Your task to perform on an android device: search for accent chairs on article.com Image 0: 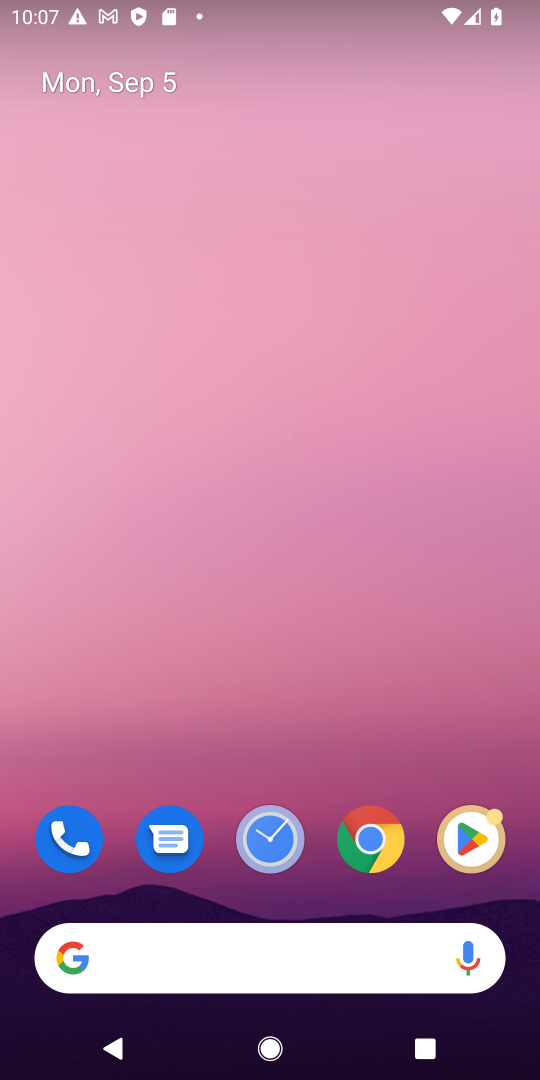
Step 0: click (305, 407)
Your task to perform on an android device: search for accent chairs on article.com Image 1: 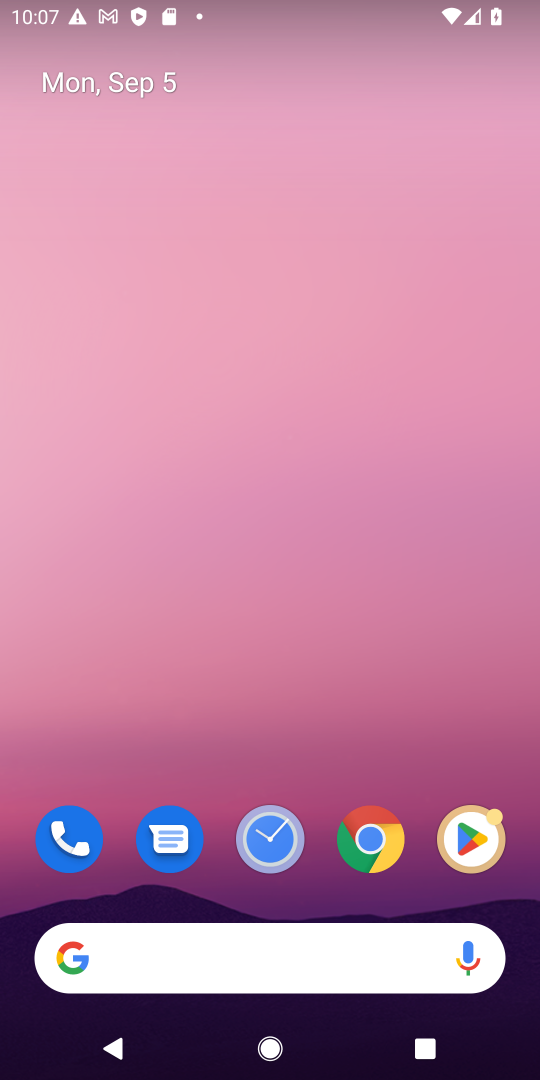
Step 1: drag from (315, 379) to (334, 126)
Your task to perform on an android device: search for accent chairs on article.com Image 2: 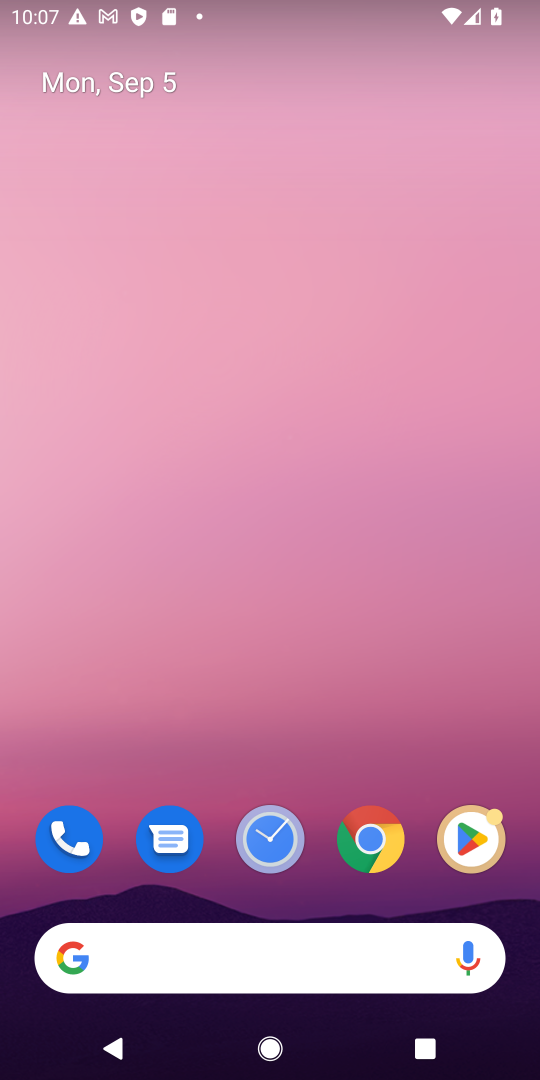
Step 2: drag from (291, 756) to (302, 107)
Your task to perform on an android device: search for accent chairs on article.com Image 3: 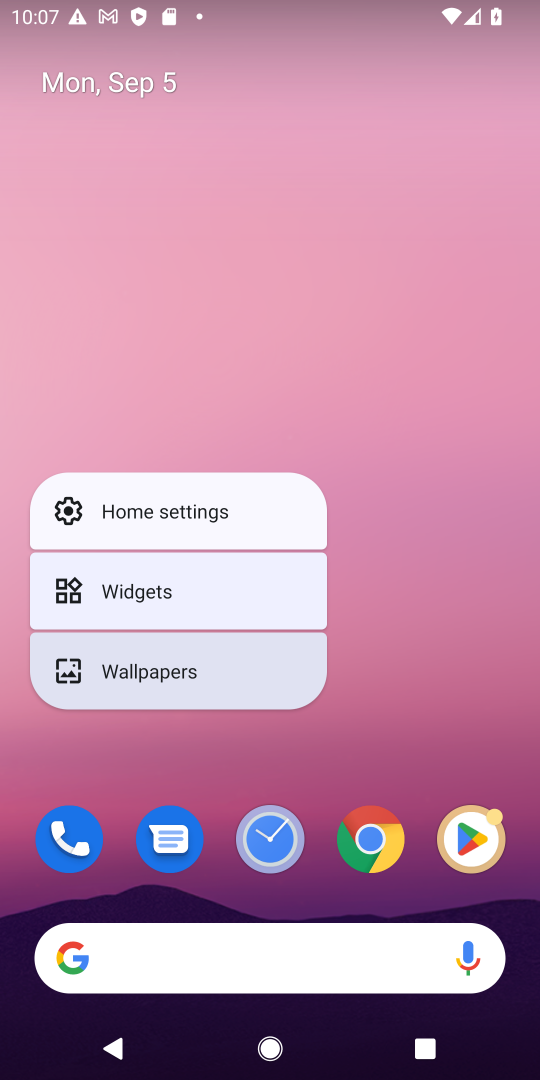
Step 3: click (365, 844)
Your task to perform on an android device: search for accent chairs on article.com Image 4: 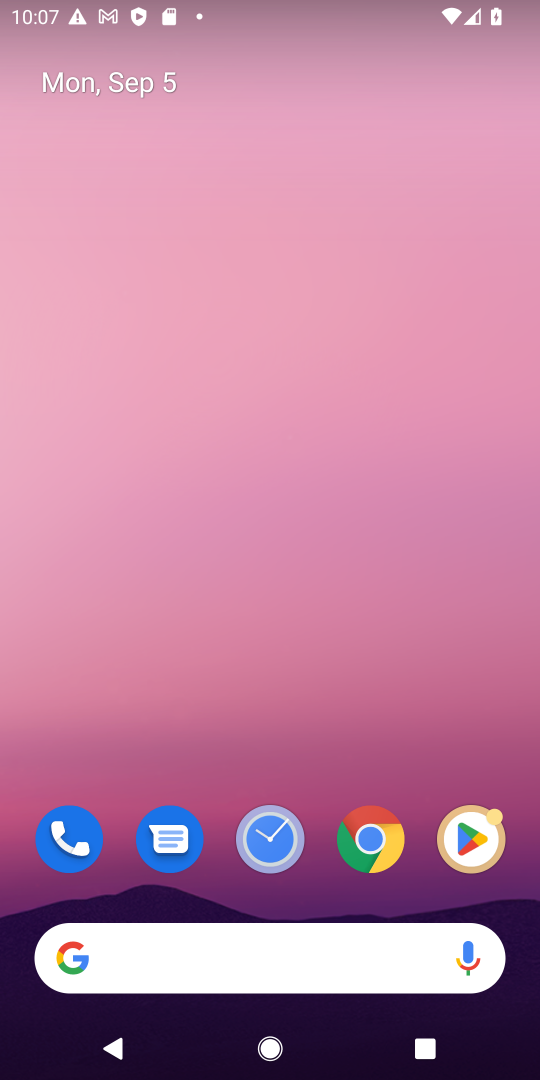
Step 4: click (365, 844)
Your task to perform on an android device: search for accent chairs on article.com Image 5: 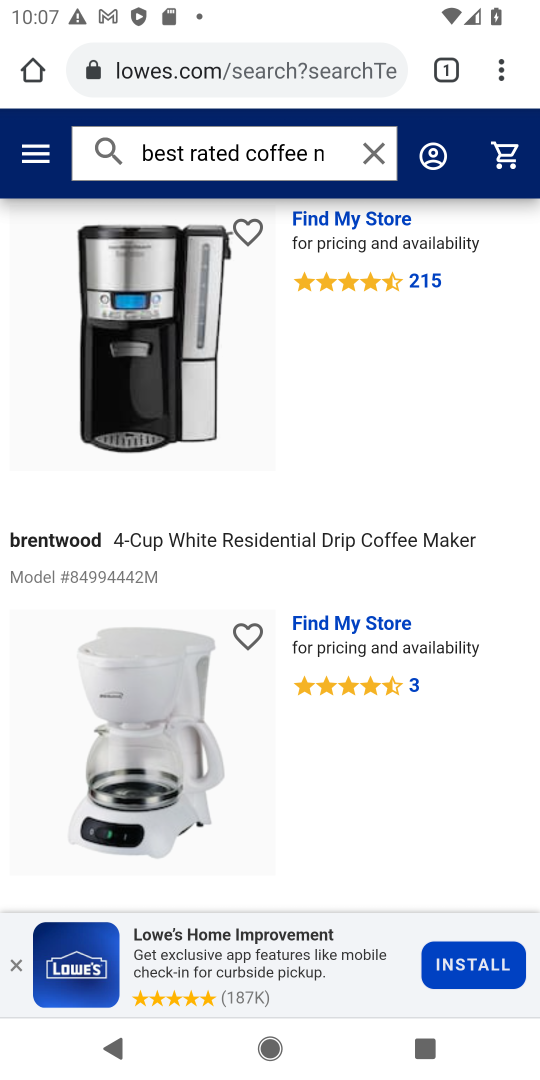
Step 5: click (379, 154)
Your task to perform on an android device: search for accent chairs on article.com Image 6: 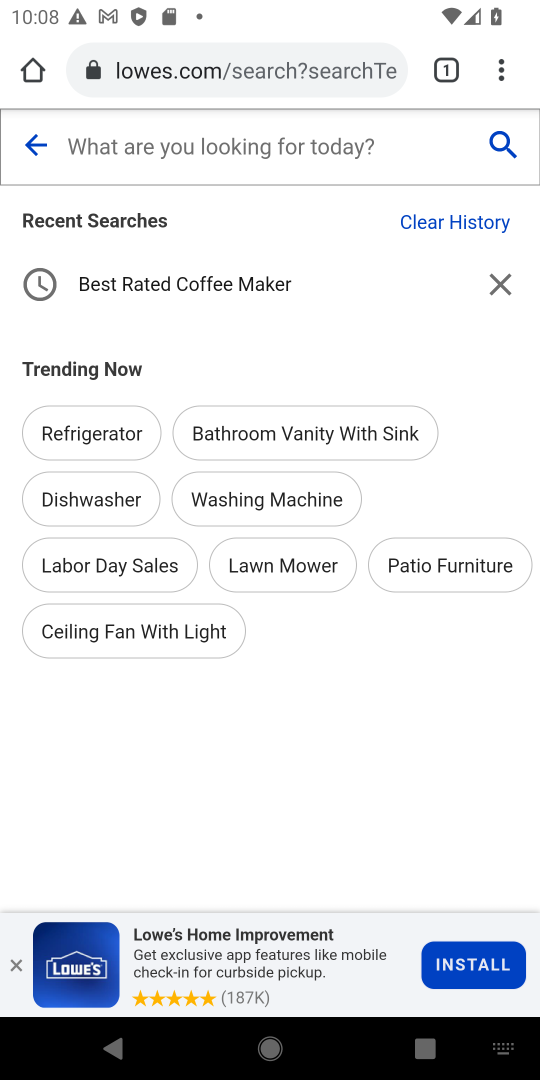
Step 6: click (235, 76)
Your task to perform on an android device: search for accent chairs on article.com Image 7: 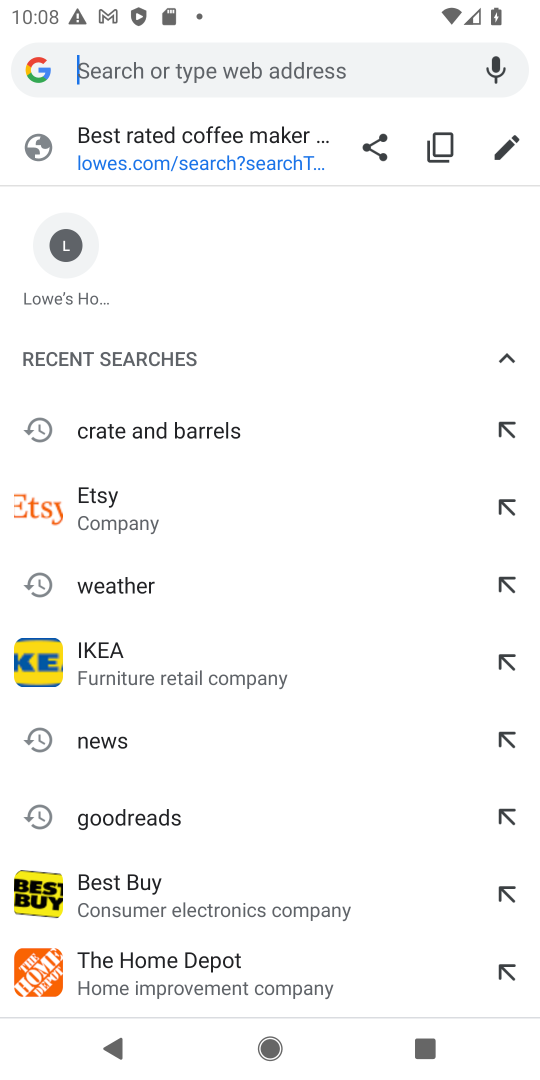
Step 7: type "article.com"
Your task to perform on an android device: search for accent chairs on article.com Image 8: 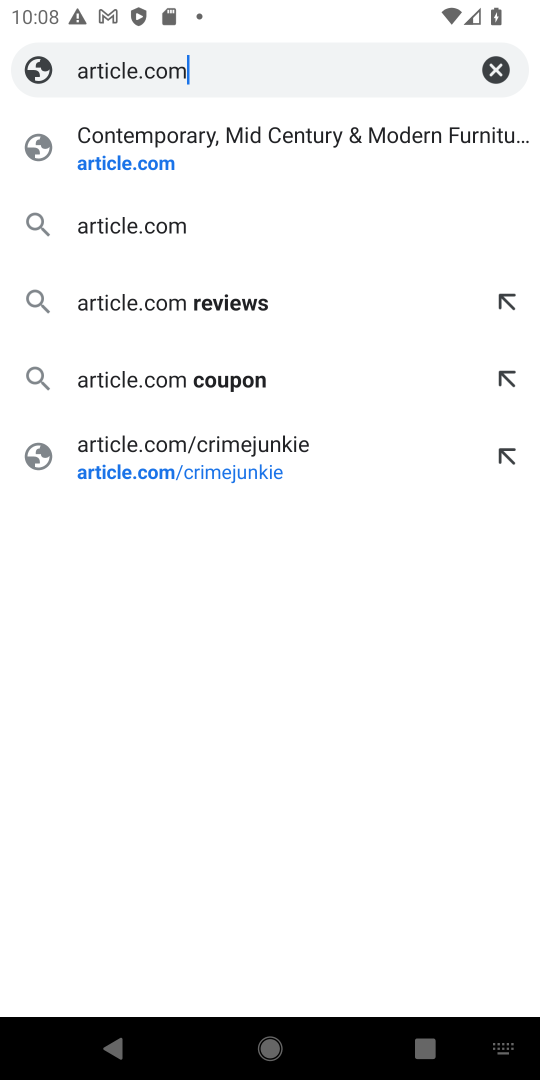
Step 8: click (144, 222)
Your task to perform on an android device: search for accent chairs on article.com Image 9: 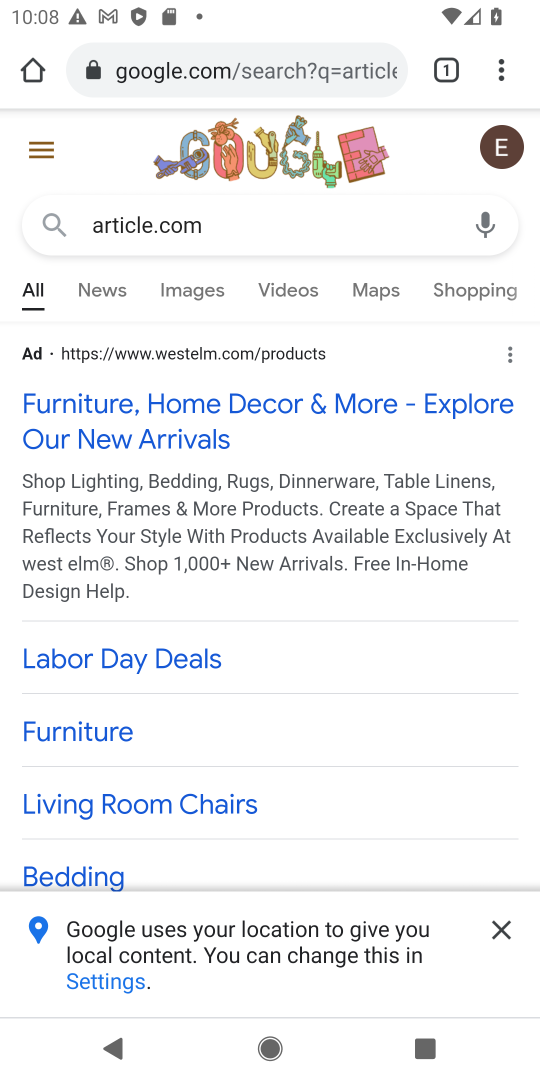
Step 9: click (203, 423)
Your task to perform on an android device: search for accent chairs on article.com Image 10: 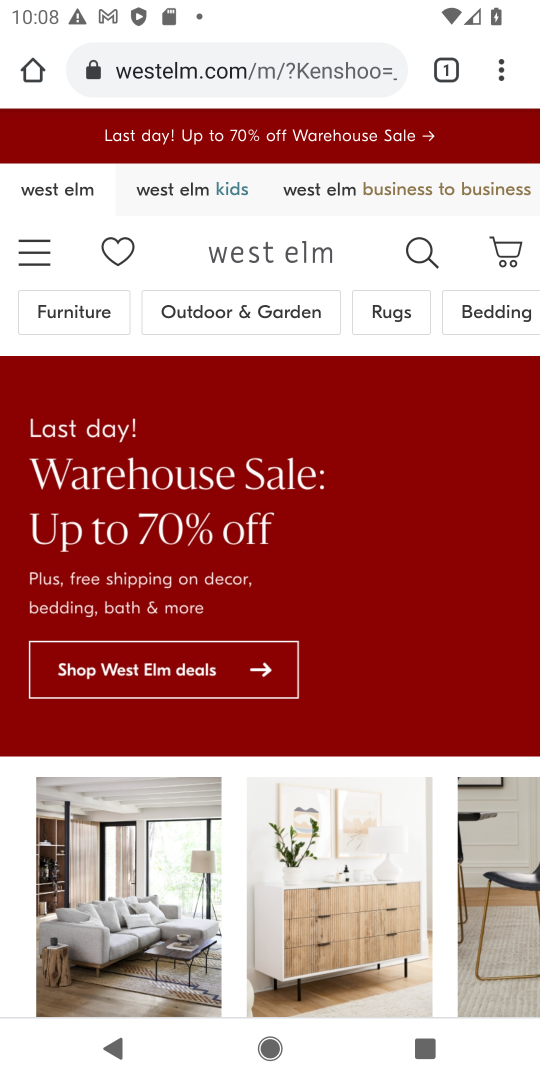
Step 10: click (409, 246)
Your task to perform on an android device: search for accent chairs on article.com Image 11: 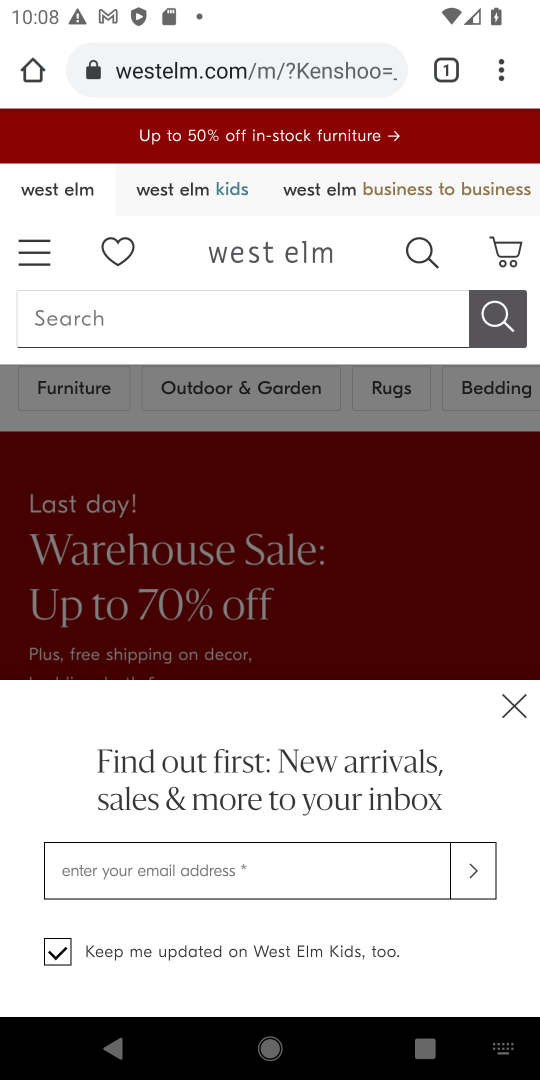
Step 11: type "accent chairs"
Your task to perform on an android device: search for accent chairs on article.com Image 12: 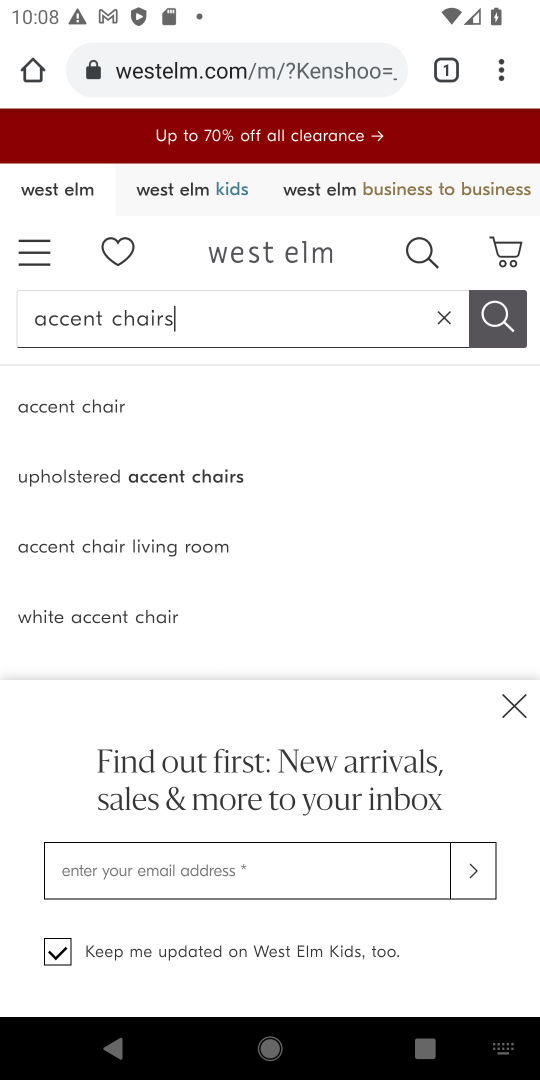
Step 12: click (55, 411)
Your task to perform on an android device: search for accent chairs on article.com Image 13: 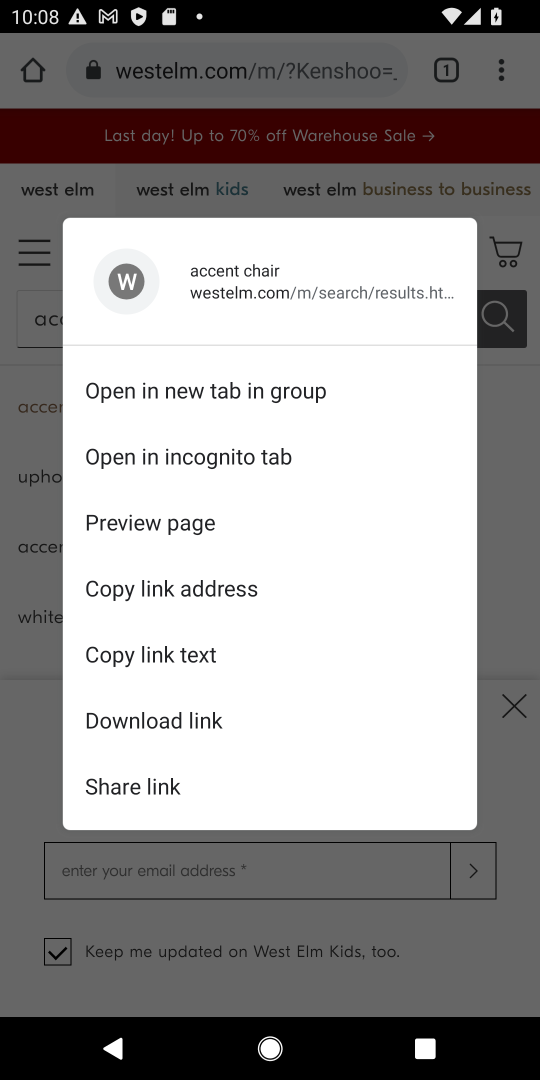
Step 13: click (488, 558)
Your task to perform on an android device: search for accent chairs on article.com Image 14: 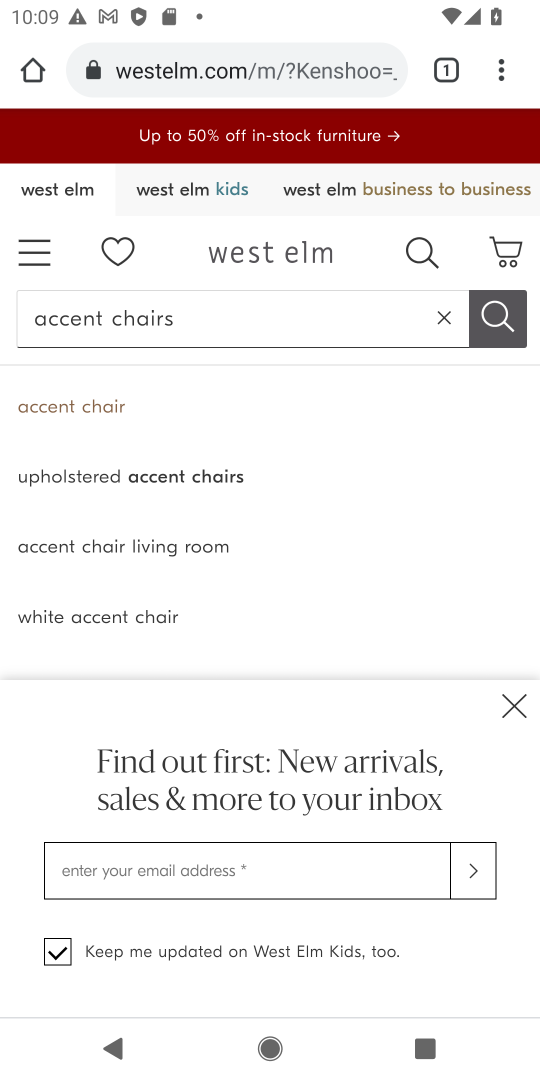
Step 14: click (106, 408)
Your task to perform on an android device: search for accent chairs on article.com Image 15: 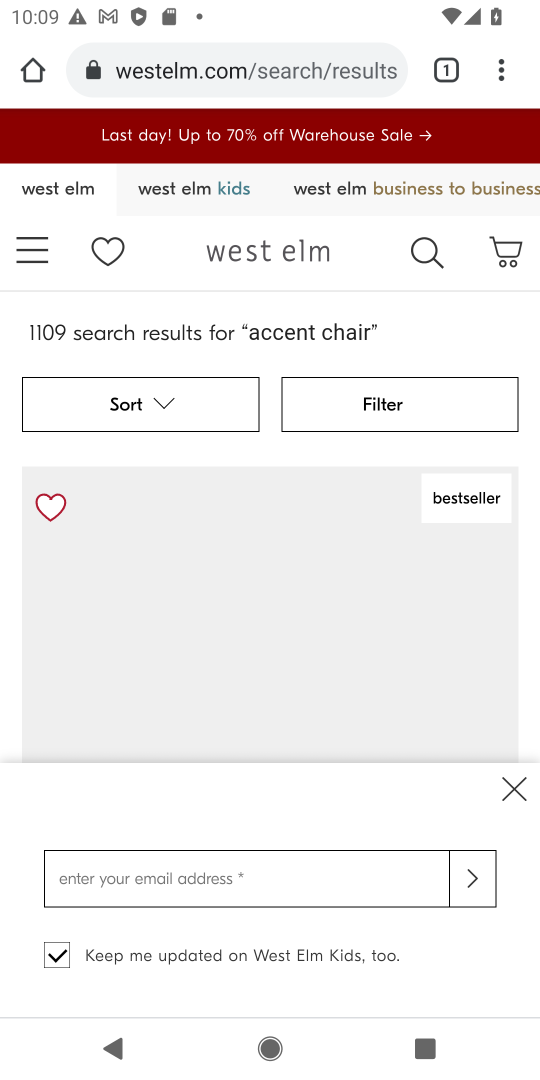
Step 15: task complete